Your task to perform on an android device: change alarm snooze length Image 0: 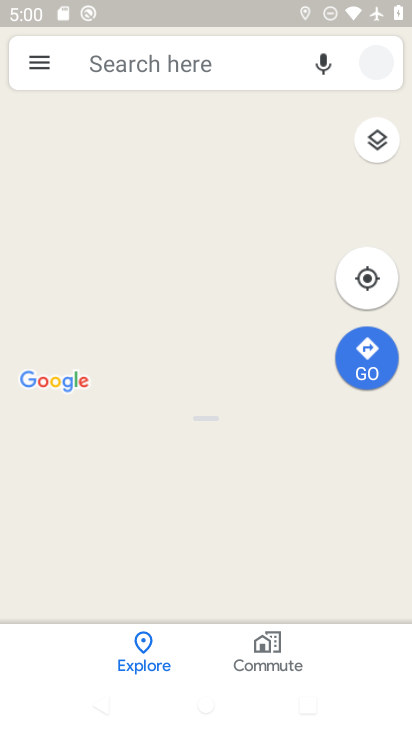
Step 0: press home button
Your task to perform on an android device: change alarm snooze length Image 1: 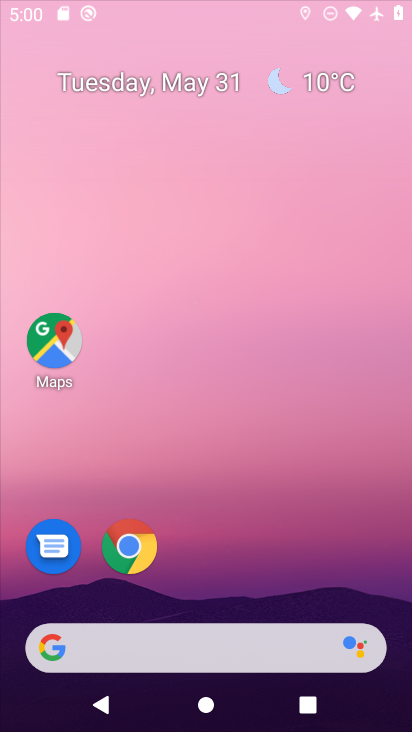
Step 1: drag from (242, 263) to (117, 0)
Your task to perform on an android device: change alarm snooze length Image 2: 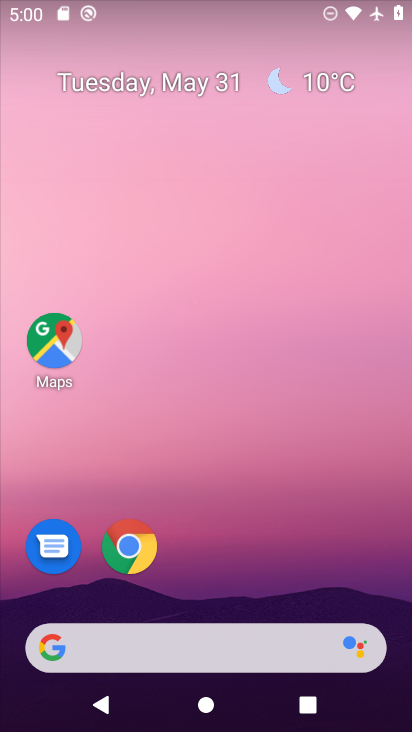
Step 2: drag from (227, 432) to (154, 6)
Your task to perform on an android device: change alarm snooze length Image 3: 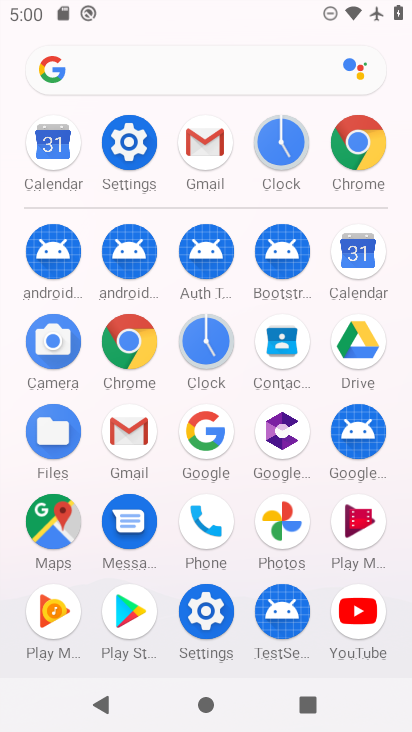
Step 3: click (277, 176)
Your task to perform on an android device: change alarm snooze length Image 4: 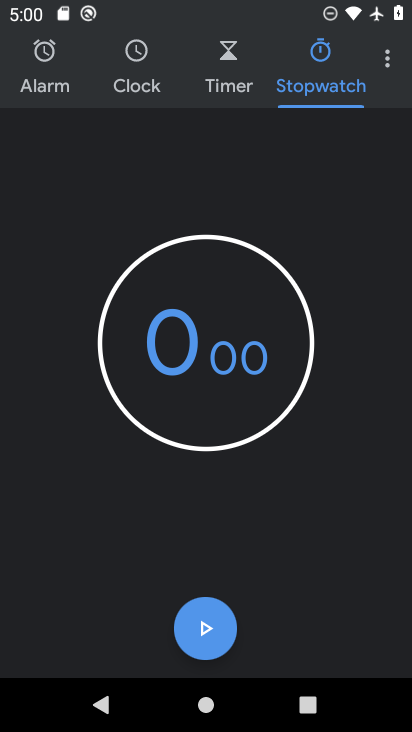
Step 4: click (383, 59)
Your task to perform on an android device: change alarm snooze length Image 5: 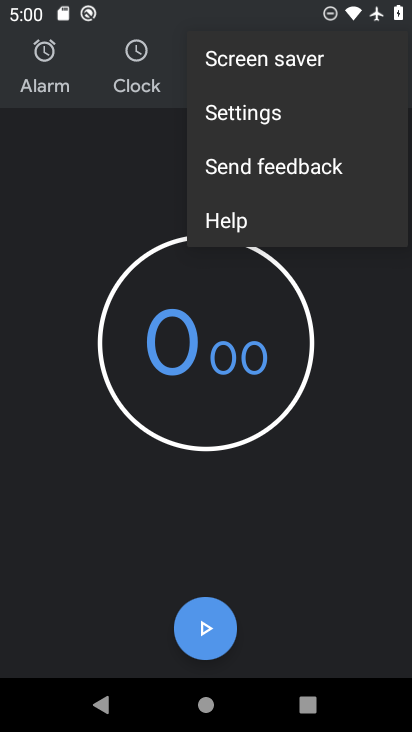
Step 5: click (293, 133)
Your task to perform on an android device: change alarm snooze length Image 6: 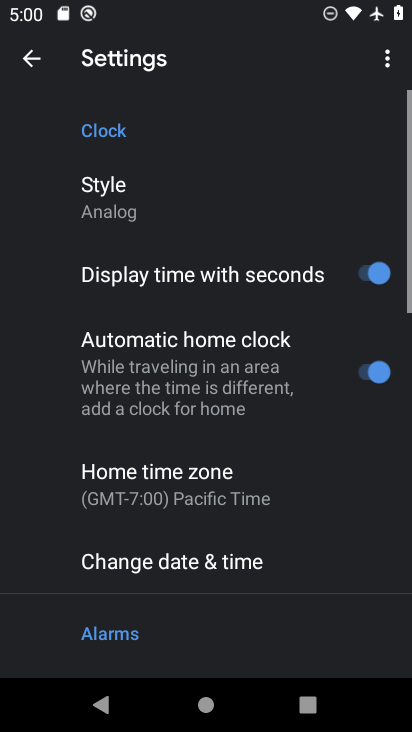
Step 6: drag from (287, 547) to (236, 166)
Your task to perform on an android device: change alarm snooze length Image 7: 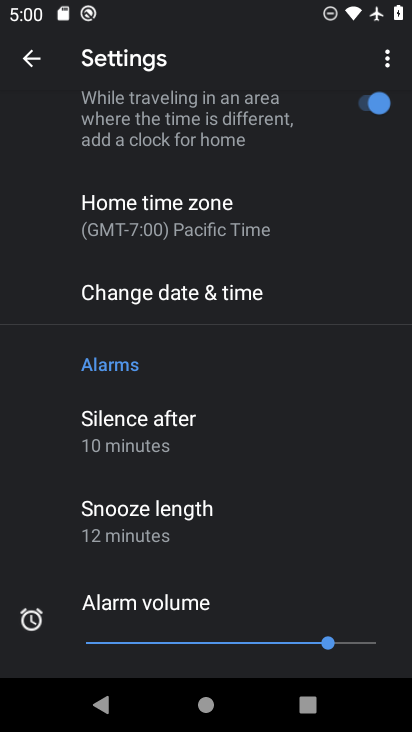
Step 7: click (197, 499)
Your task to perform on an android device: change alarm snooze length Image 8: 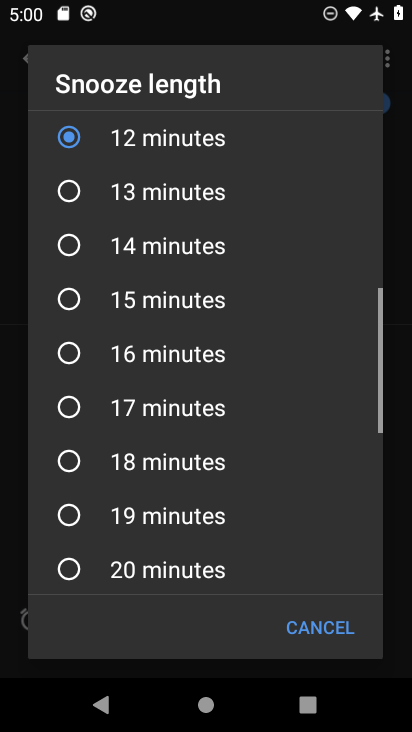
Step 8: click (112, 179)
Your task to perform on an android device: change alarm snooze length Image 9: 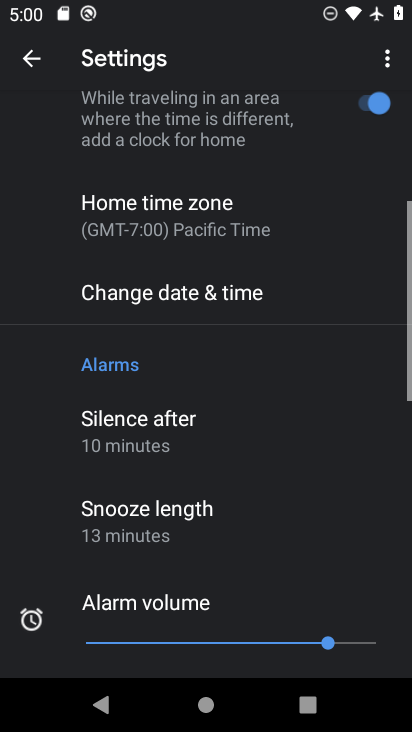
Step 9: task complete